Your task to perform on an android device: open a bookmark in the chrome app Image 0: 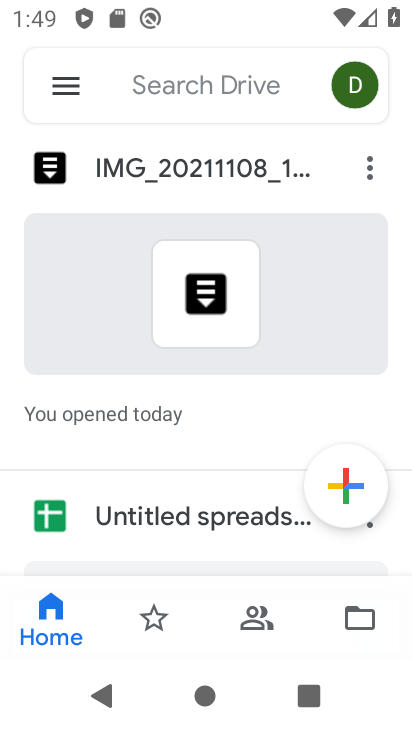
Step 0: press home button
Your task to perform on an android device: open a bookmark in the chrome app Image 1: 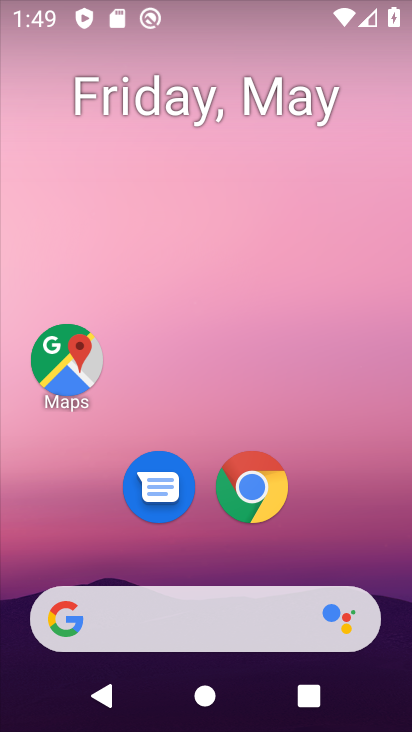
Step 1: click (247, 501)
Your task to perform on an android device: open a bookmark in the chrome app Image 2: 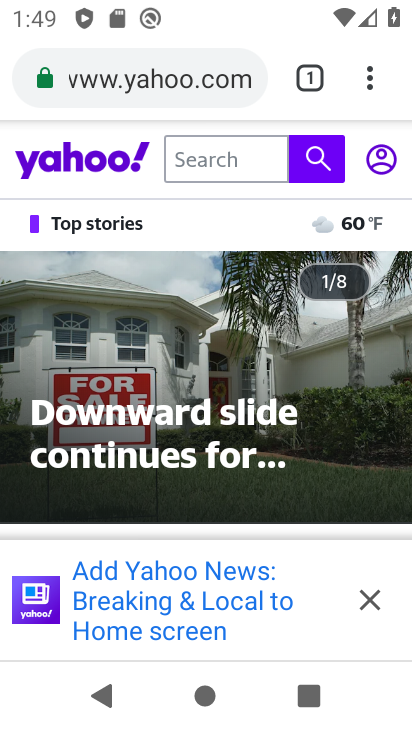
Step 2: click (373, 79)
Your task to perform on an android device: open a bookmark in the chrome app Image 3: 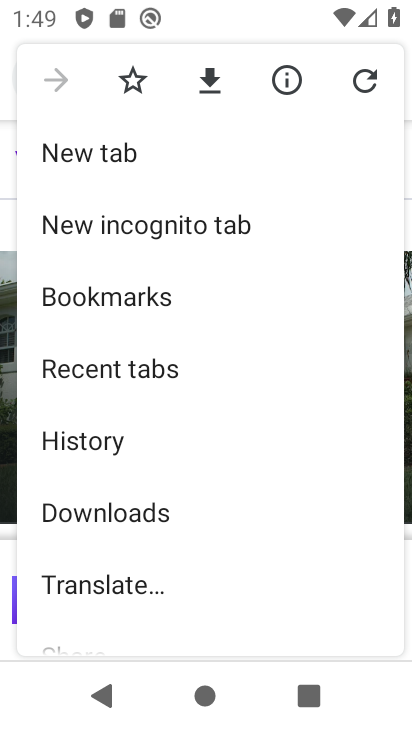
Step 3: click (133, 303)
Your task to perform on an android device: open a bookmark in the chrome app Image 4: 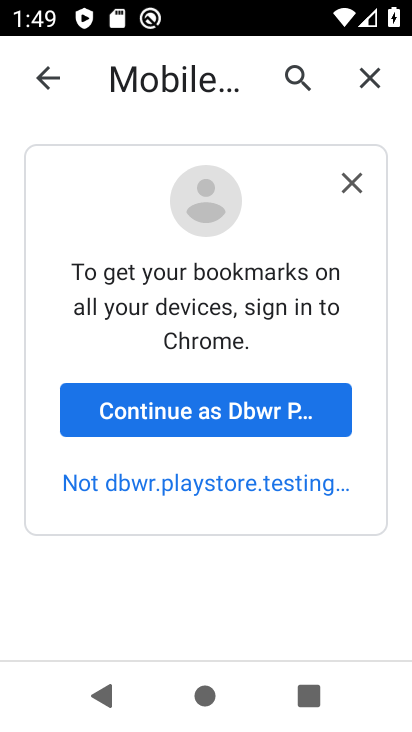
Step 4: click (183, 420)
Your task to perform on an android device: open a bookmark in the chrome app Image 5: 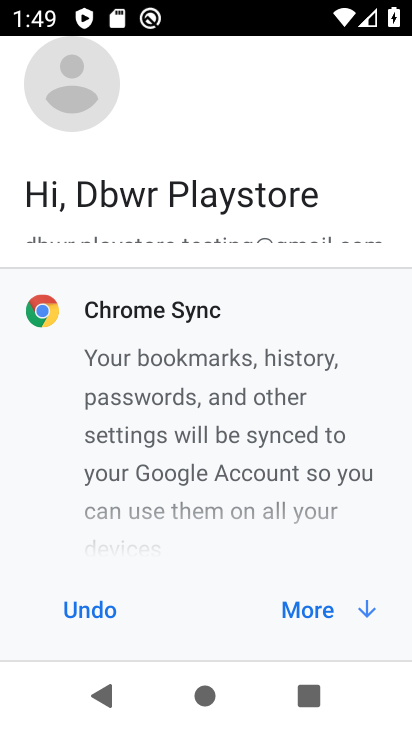
Step 5: click (322, 619)
Your task to perform on an android device: open a bookmark in the chrome app Image 6: 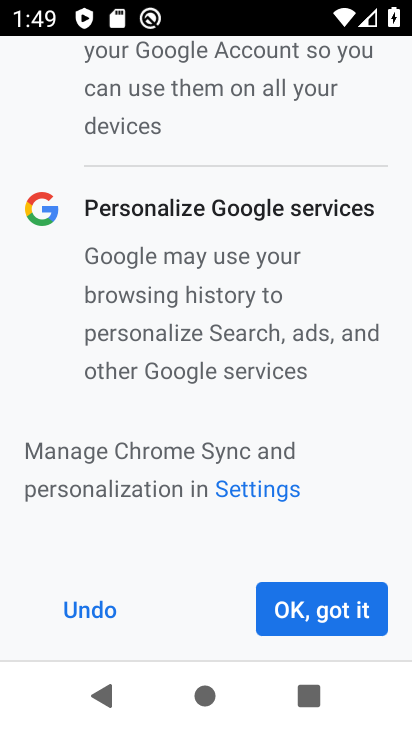
Step 6: click (322, 619)
Your task to perform on an android device: open a bookmark in the chrome app Image 7: 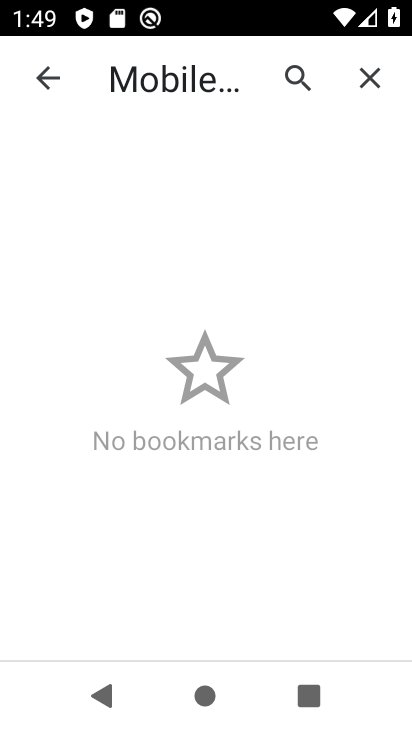
Step 7: task complete